Your task to perform on an android device: turn on showing notifications on the lock screen Image 0: 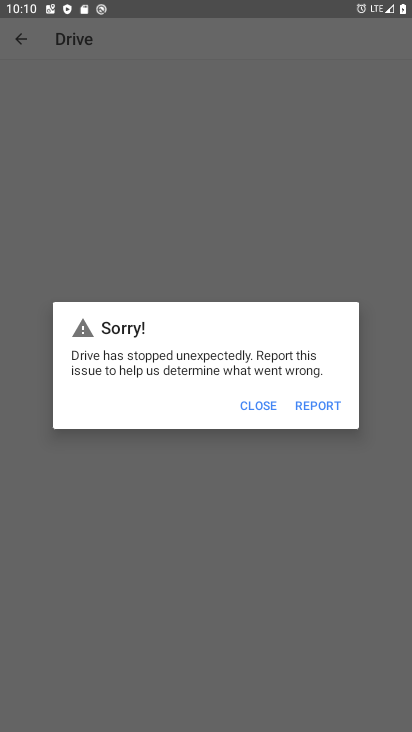
Step 0: press back button
Your task to perform on an android device: turn on showing notifications on the lock screen Image 1: 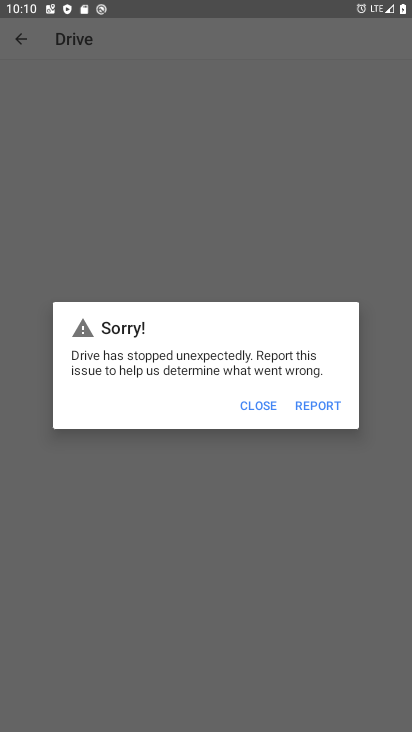
Step 1: press home button
Your task to perform on an android device: turn on showing notifications on the lock screen Image 2: 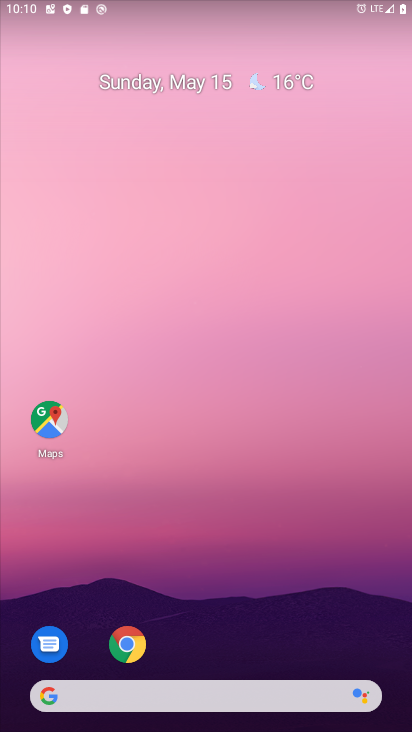
Step 2: drag from (310, 629) to (313, 89)
Your task to perform on an android device: turn on showing notifications on the lock screen Image 3: 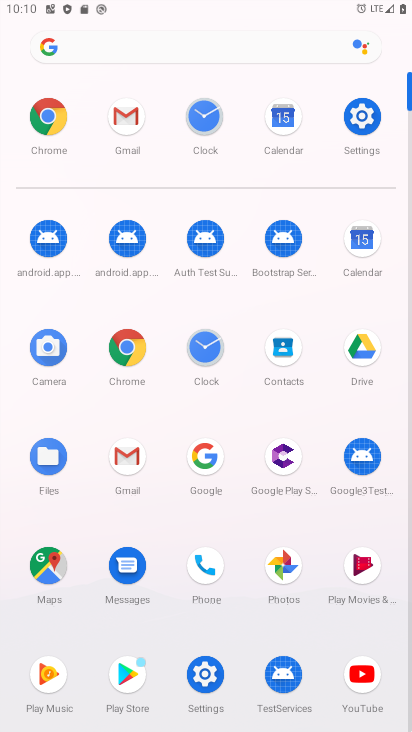
Step 3: click (360, 112)
Your task to perform on an android device: turn on showing notifications on the lock screen Image 4: 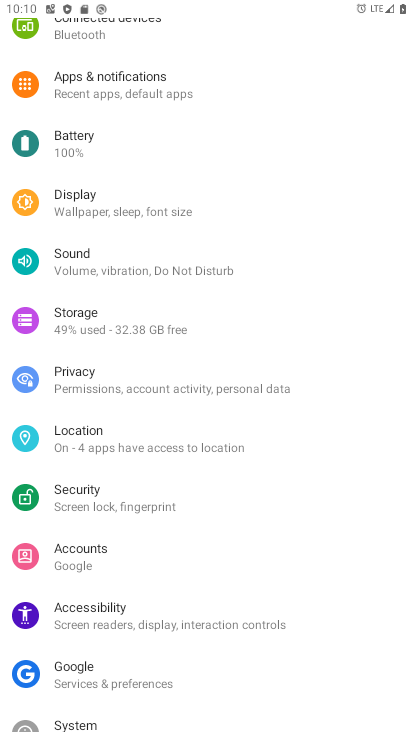
Step 4: click (146, 89)
Your task to perform on an android device: turn on showing notifications on the lock screen Image 5: 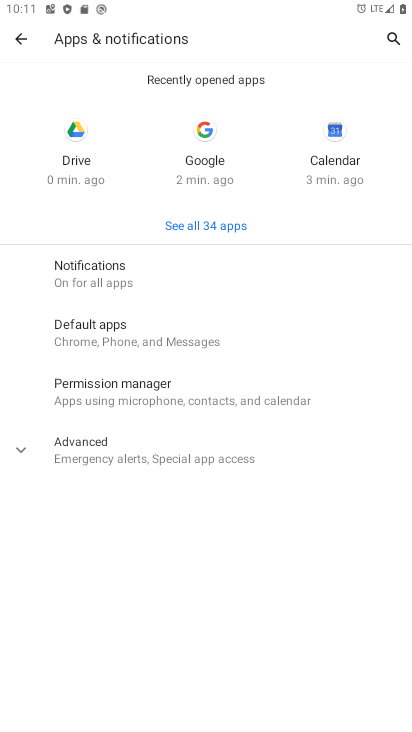
Step 5: click (96, 279)
Your task to perform on an android device: turn on showing notifications on the lock screen Image 6: 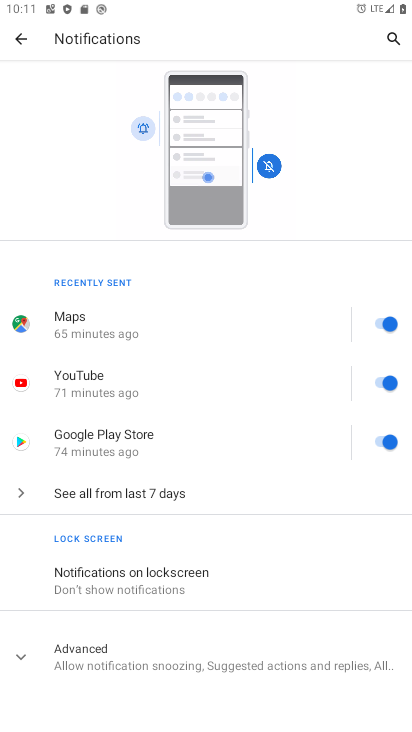
Step 6: click (173, 571)
Your task to perform on an android device: turn on showing notifications on the lock screen Image 7: 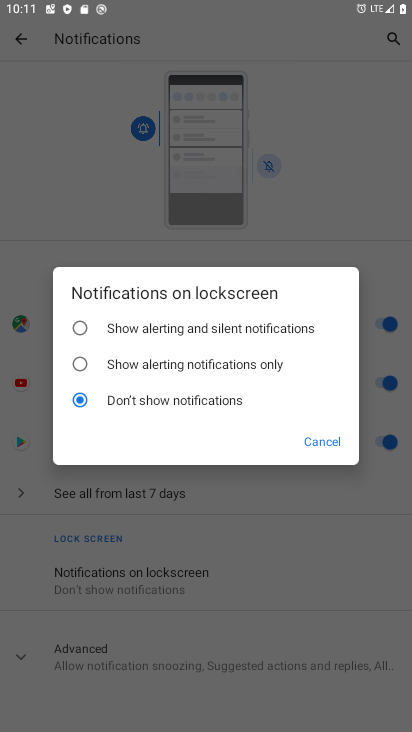
Step 7: click (78, 317)
Your task to perform on an android device: turn on showing notifications on the lock screen Image 8: 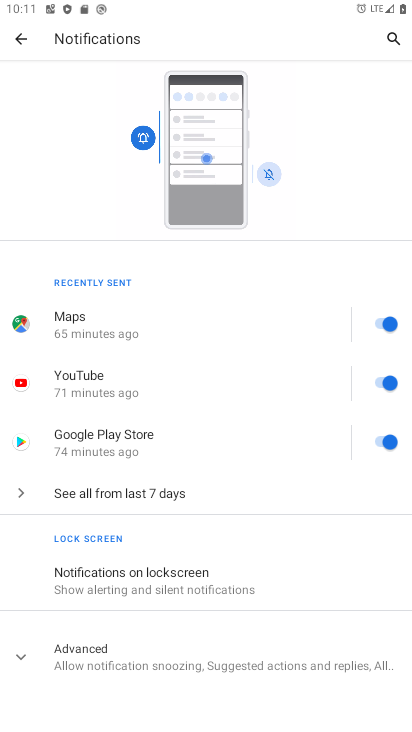
Step 8: task complete